Your task to perform on an android device: Open accessibility settings Image 0: 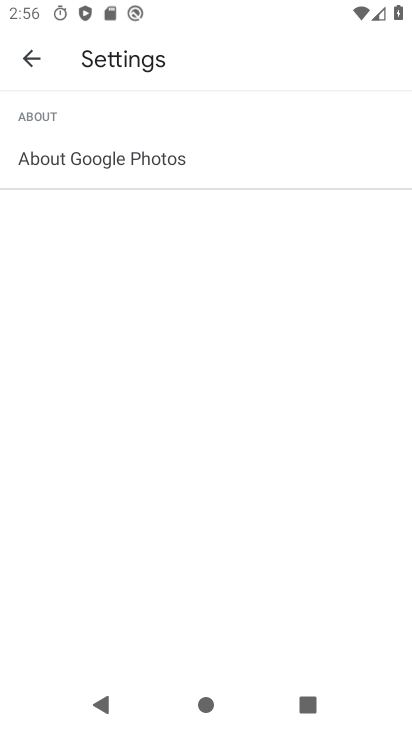
Step 0: press home button
Your task to perform on an android device: Open accessibility settings Image 1: 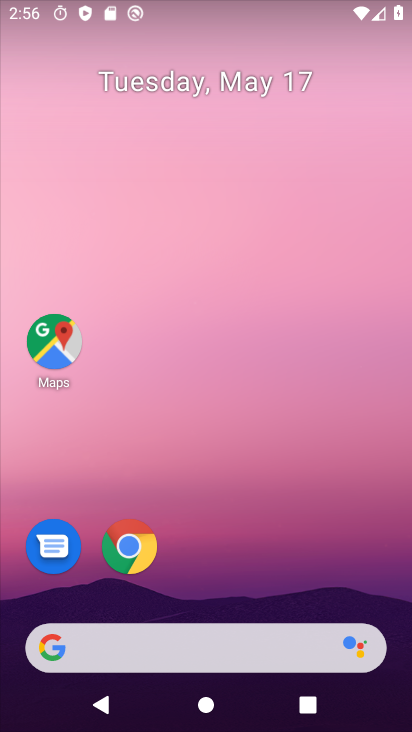
Step 1: drag from (236, 601) to (221, 198)
Your task to perform on an android device: Open accessibility settings Image 2: 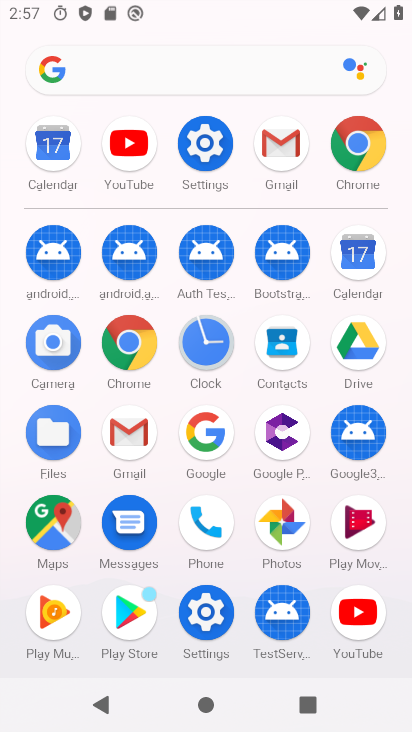
Step 2: click (211, 168)
Your task to perform on an android device: Open accessibility settings Image 3: 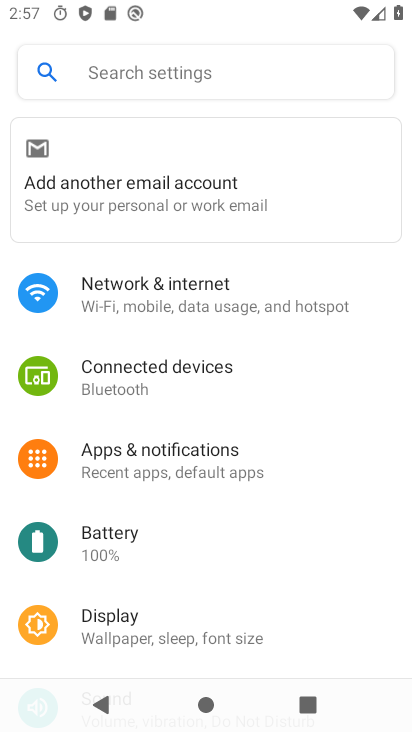
Step 3: drag from (166, 572) to (169, 204)
Your task to perform on an android device: Open accessibility settings Image 4: 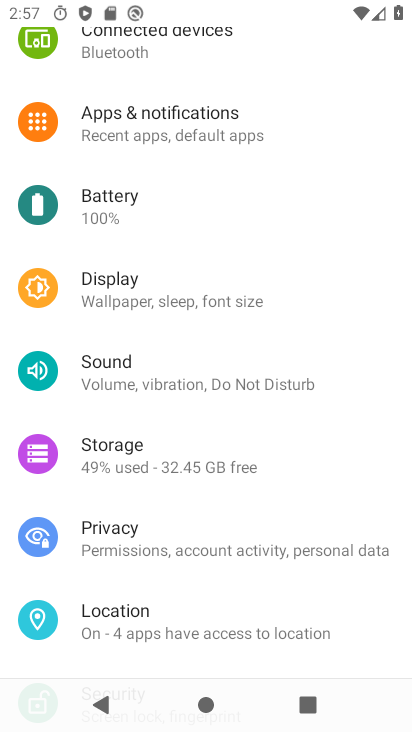
Step 4: drag from (171, 560) to (188, 245)
Your task to perform on an android device: Open accessibility settings Image 5: 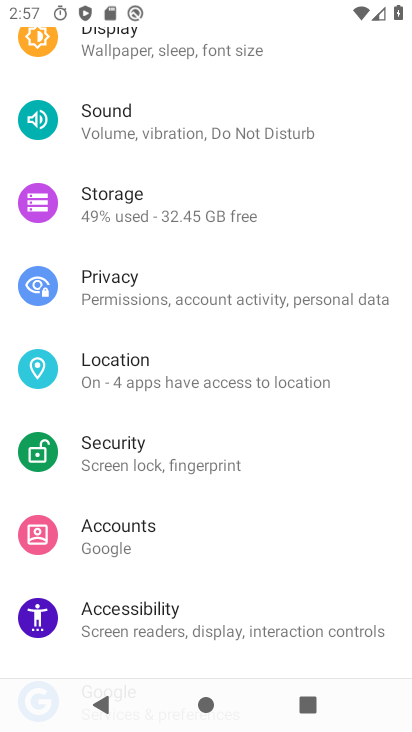
Step 5: drag from (185, 561) to (213, 273)
Your task to perform on an android device: Open accessibility settings Image 6: 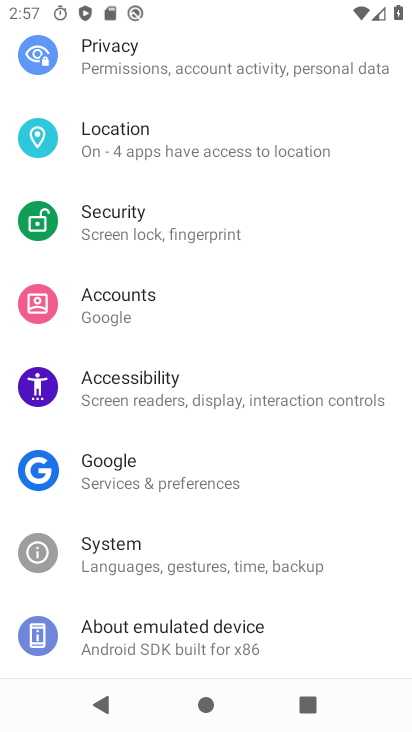
Step 6: click (176, 407)
Your task to perform on an android device: Open accessibility settings Image 7: 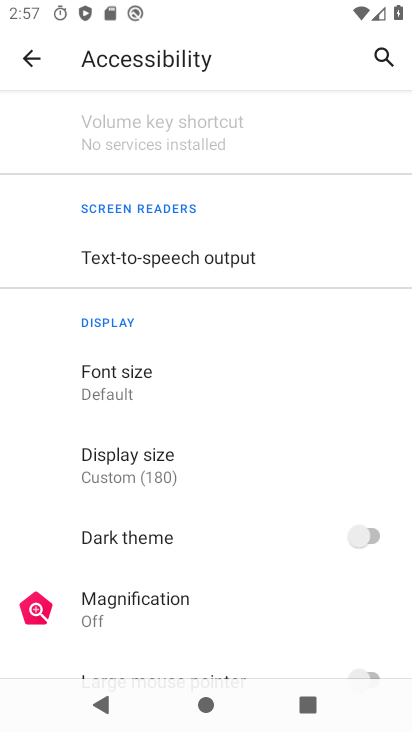
Step 7: task complete